Your task to perform on an android device: toggle data saver in the chrome app Image 0: 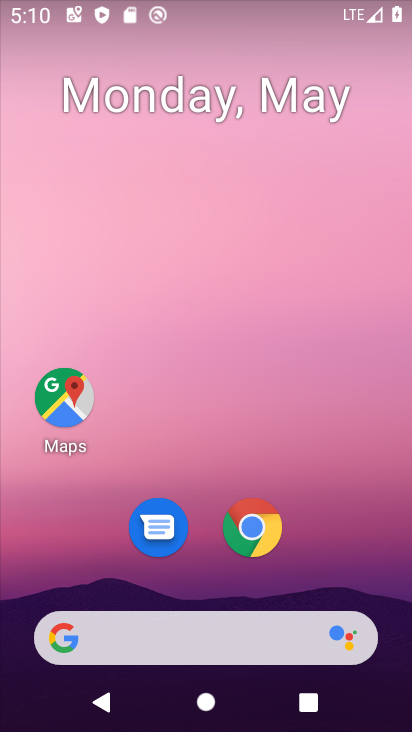
Step 0: click (244, 527)
Your task to perform on an android device: toggle data saver in the chrome app Image 1: 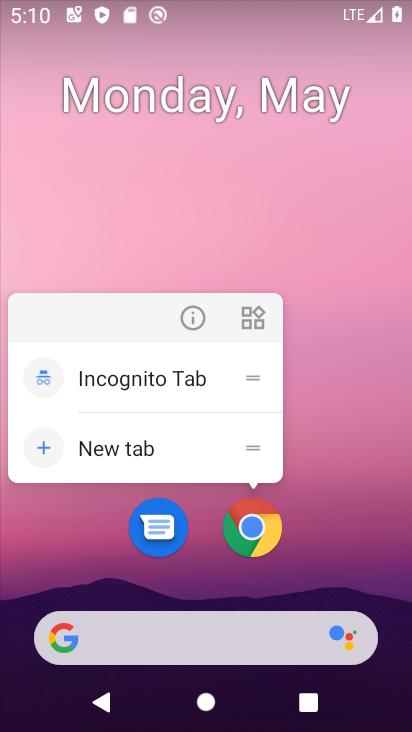
Step 1: click (238, 525)
Your task to perform on an android device: toggle data saver in the chrome app Image 2: 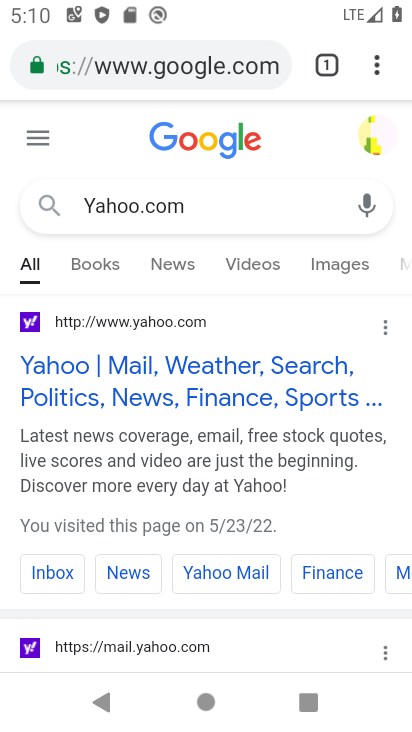
Step 2: click (379, 58)
Your task to perform on an android device: toggle data saver in the chrome app Image 3: 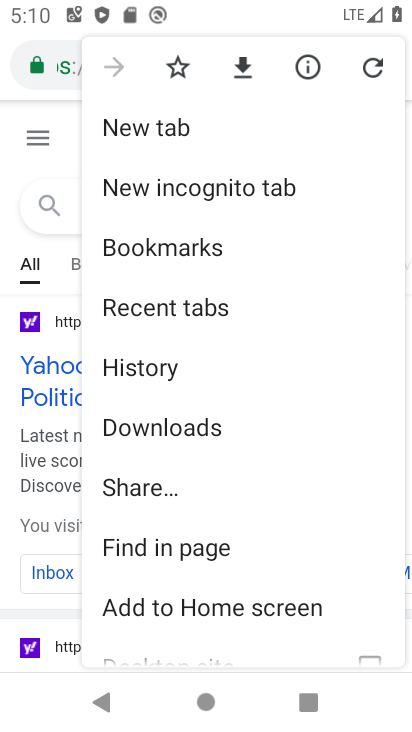
Step 3: drag from (295, 567) to (289, 131)
Your task to perform on an android device: toggle data saver in the chrome app Image 4: 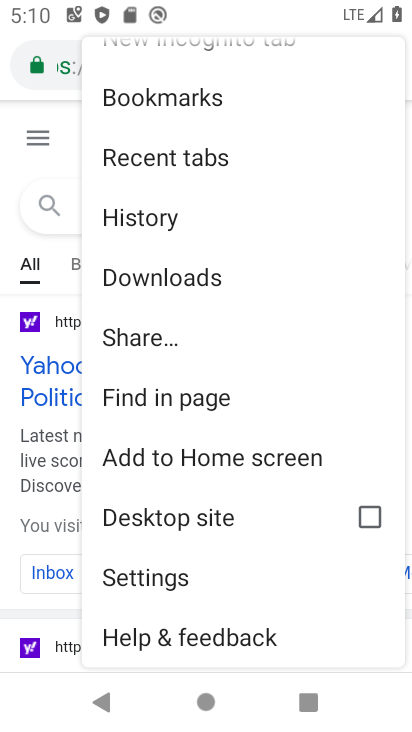
Step 4: drag from (273, 592) to (288, 253)
Your task to perform on an android device: toggle data saver in the chrome app Image 5: 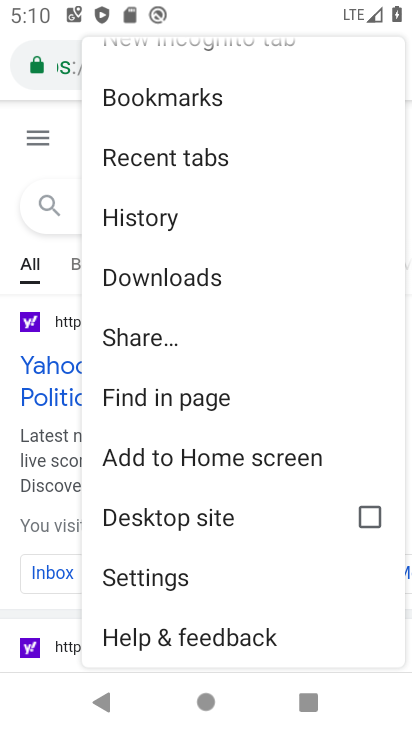
Step 5: click (121, 574)
Your task to perform on an android device: toggle data saver in the chrome app Image 6: 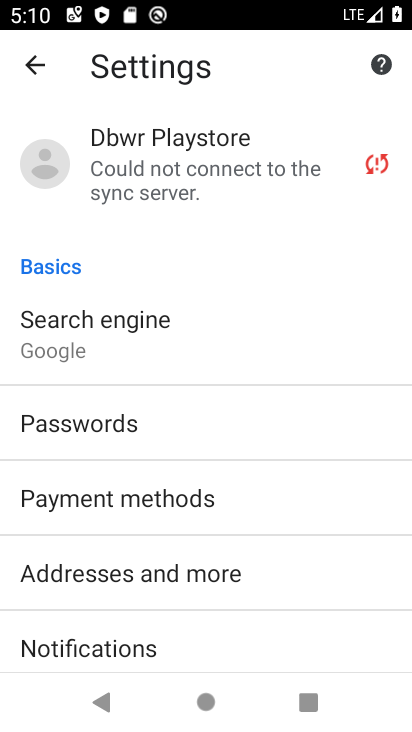
Step 6: drag from (310, 598) to (323, 294)
Your task to perform on an android device: toggle data saver in the chrome app Image 7: 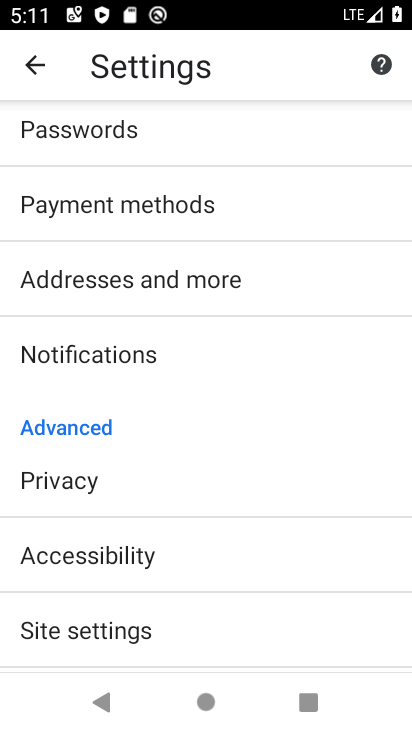
Step 7: drag from (263, 611) to (257, 225)
Your task to perform on an android device: toggle data saver in the chrome app Image 8: 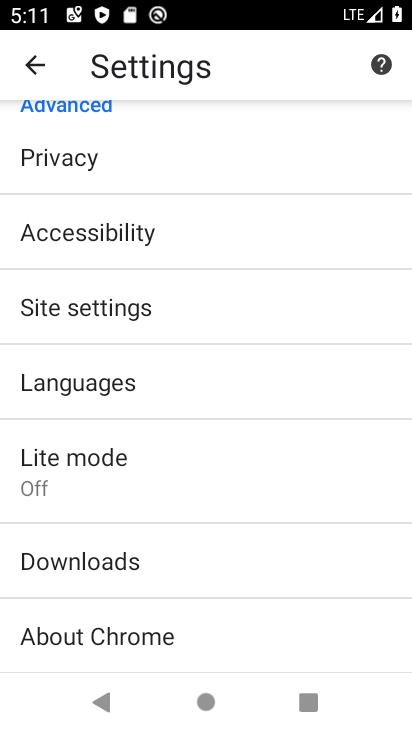
Step 8: click (69, 460)
Your task to perform on an android device: toggle data saver in the chrome app Image 9: 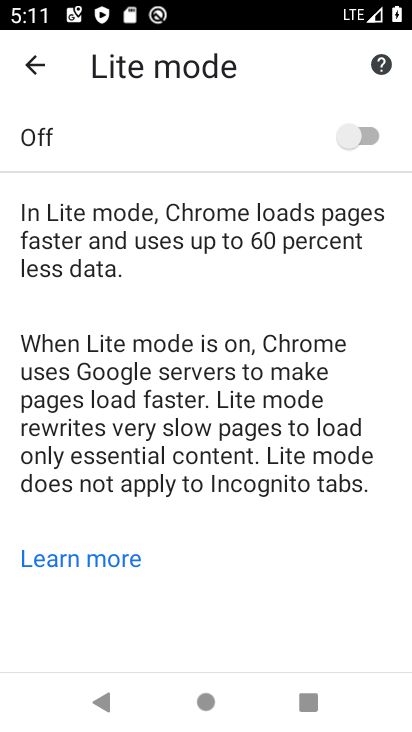
Step 9: click (371, 130)
Your task to perform on an android device: toggle data saver in the chrome app Image 10: 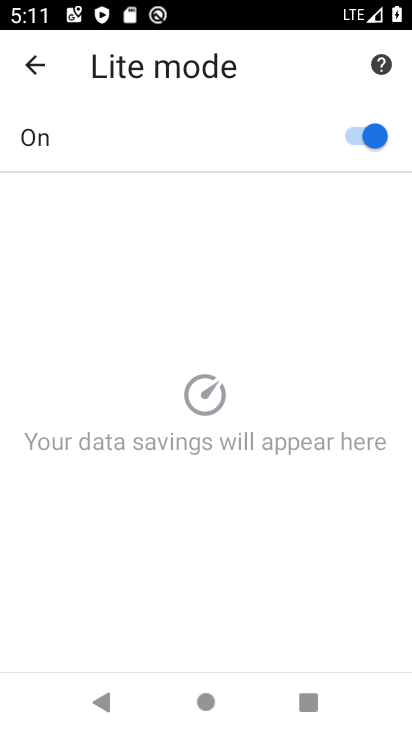
Step 10: task complete